Your task to perform on an android device: Search for pizza restaurants on Maps Image 0: 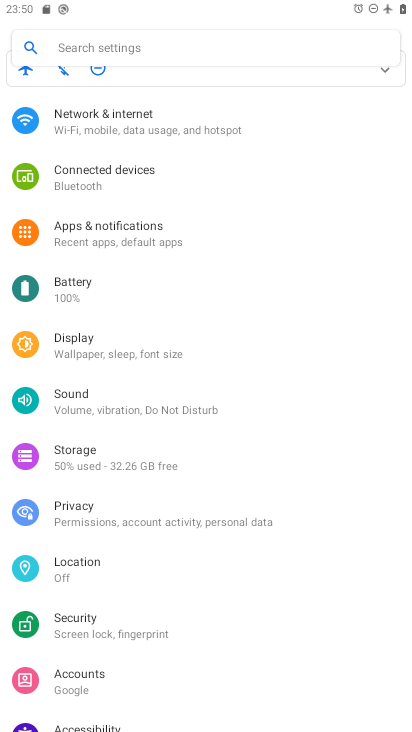
Step 0: press home button
Your task to perform on an android device: Search for pizza restaurants on Maps Image 1: 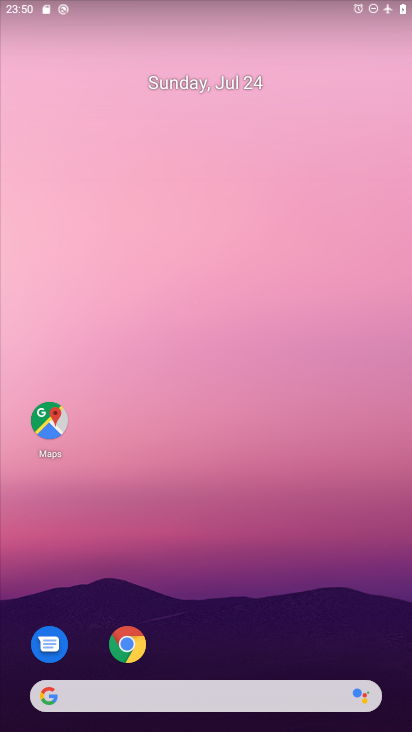
Step 1: click (49, 421)
Your task to perform on an android device: Search for pizza restaurants on Maps Image 2: 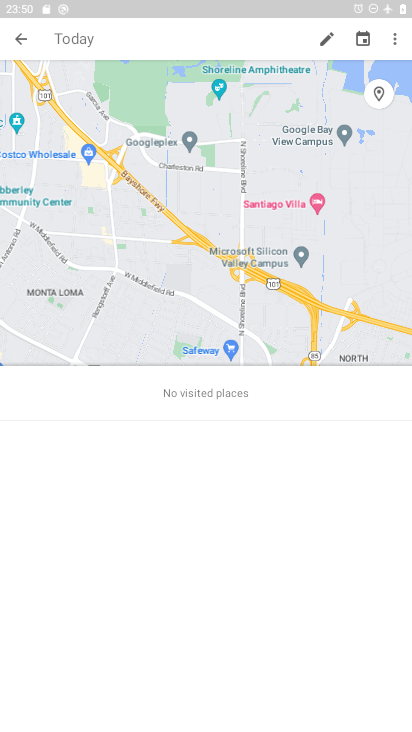
Step 2: press back button
Your task to perform on an android device: Search for pizza restaurants on Maps Image 3: 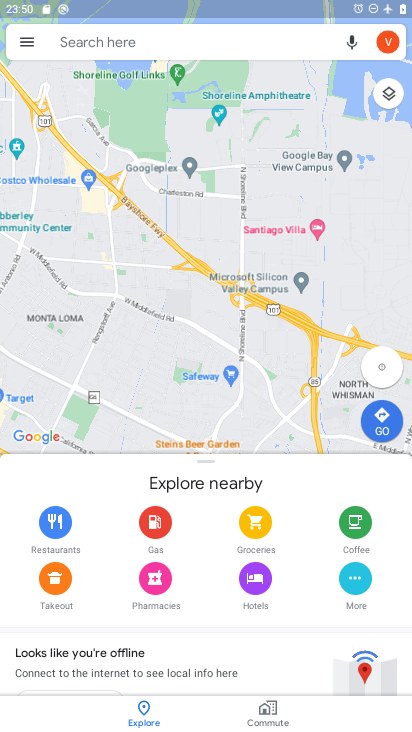
Step 3: click (96, 38)
Your task to perform on an android device: Search for pizza restaurants on Maps Image 4: 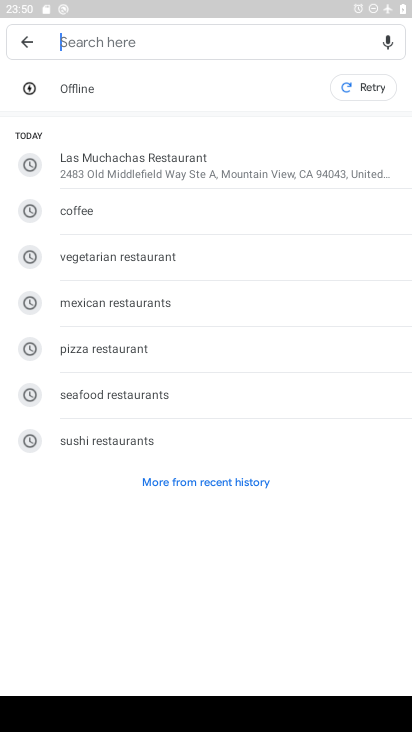
Step 4: type "pizza restaurants"
Your task to perform on an android device: Search for pizza restaurants on Maps Image 5: 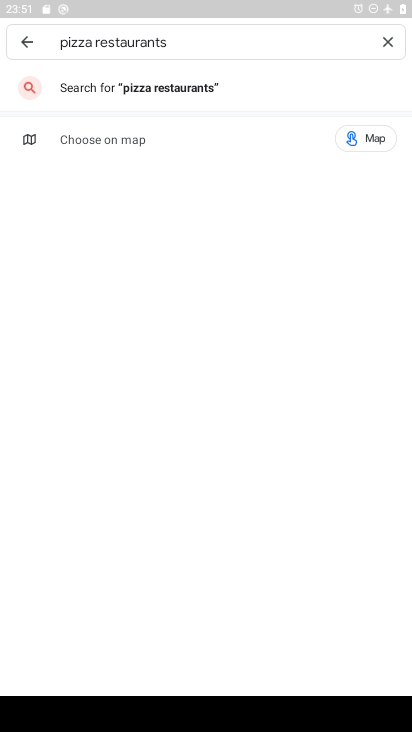
Step 5: click (162, 90)
Your task to perform on an android device: Search for pizza restaurants on Maps Image 6: 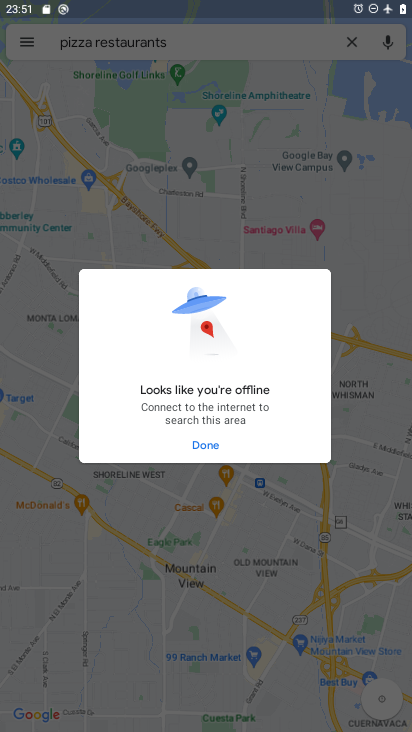
Step 6: task complete